Your task to perform on an android device: Show the shopping cart on target.com. Image 0: 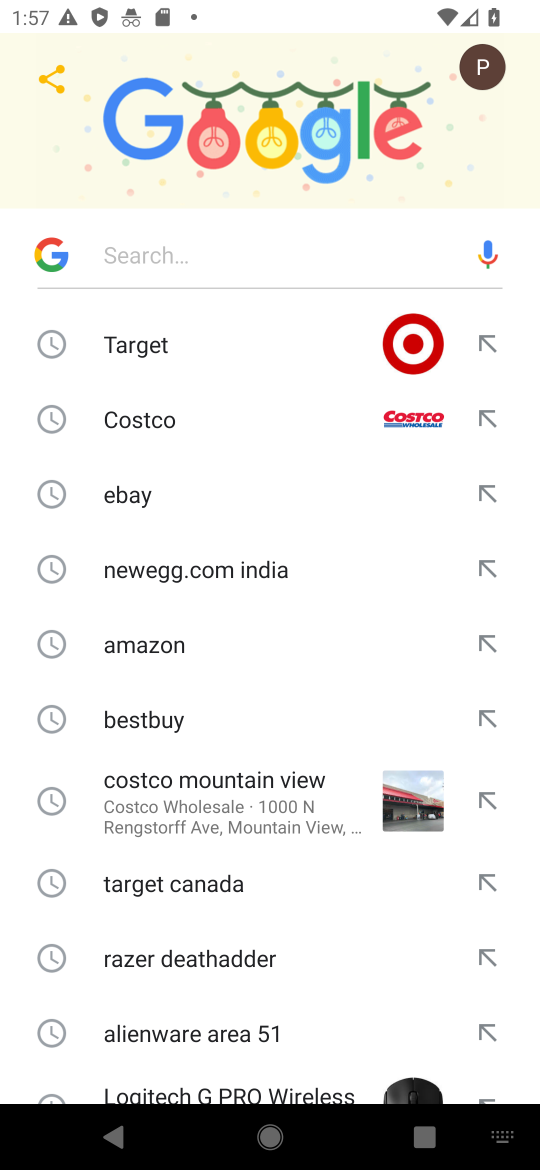
Step 0: press home button
Your task to perform on an android device: Show the shopping cart on target.com. Image 1: 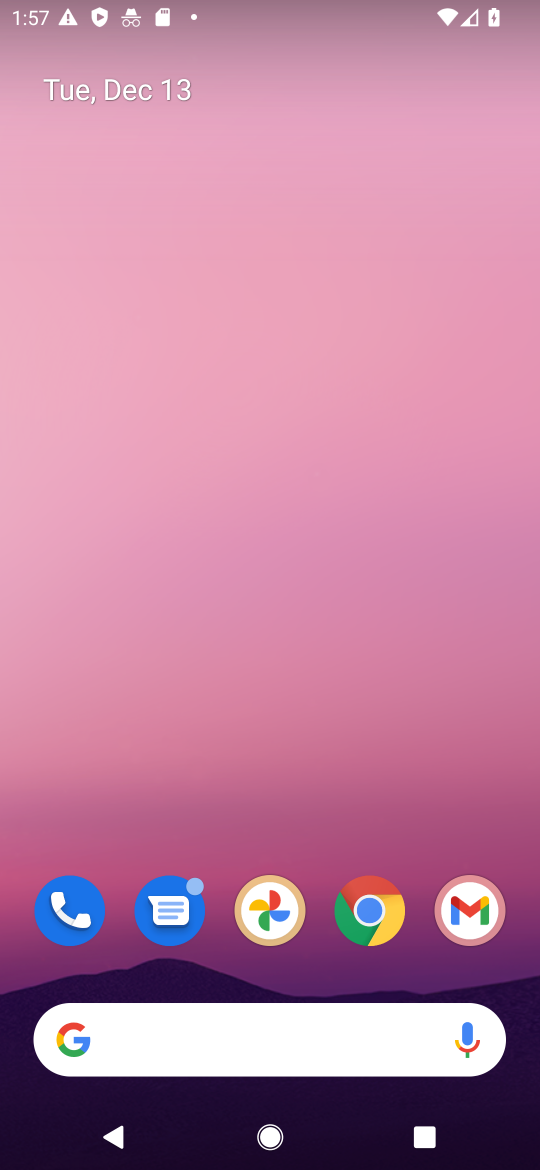
Step 1: click (365, 918)
Your task to perform on an android device: Show the shopping cart on target.com. Image 2: 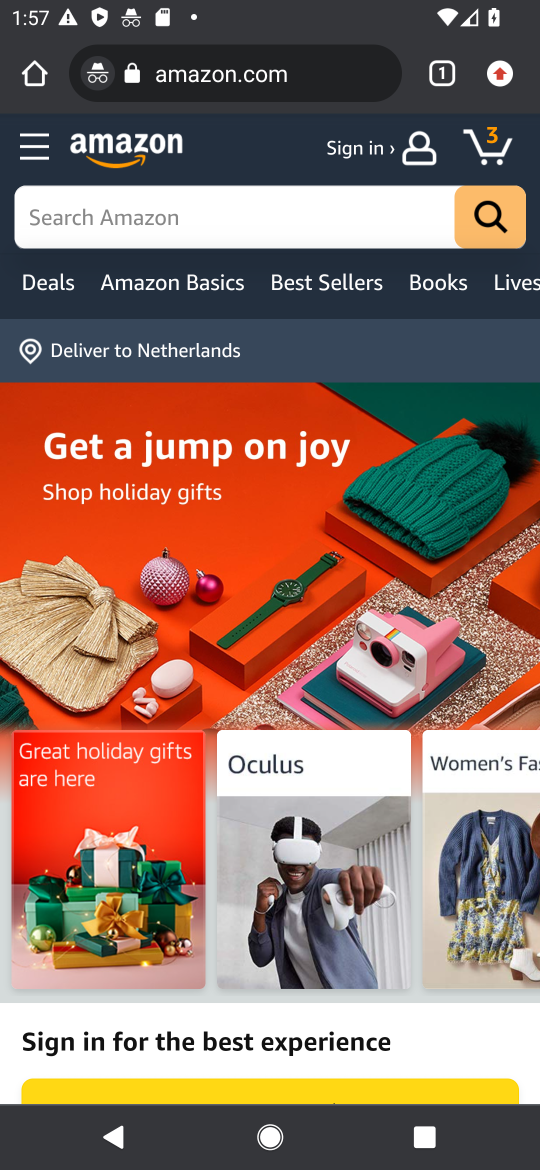
Step 2: click (209, 60)
Your task to perform on an android device: Show the shopping cart on target.com. Image 3: 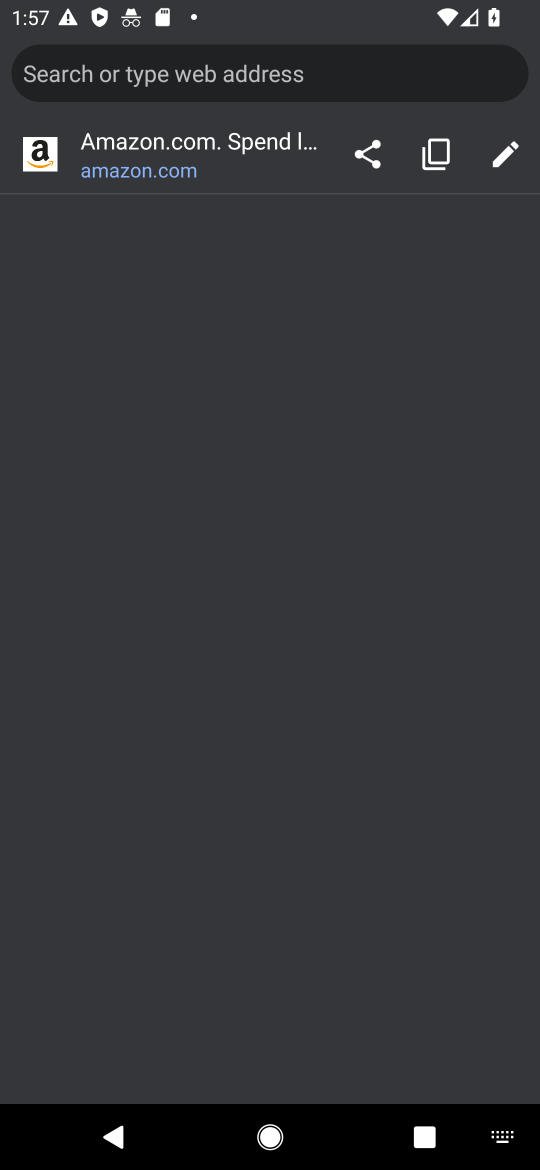
Step 3: type "TARGET"
Your task to perform on an android device: Show the shopping cart on target.com. Image 4: 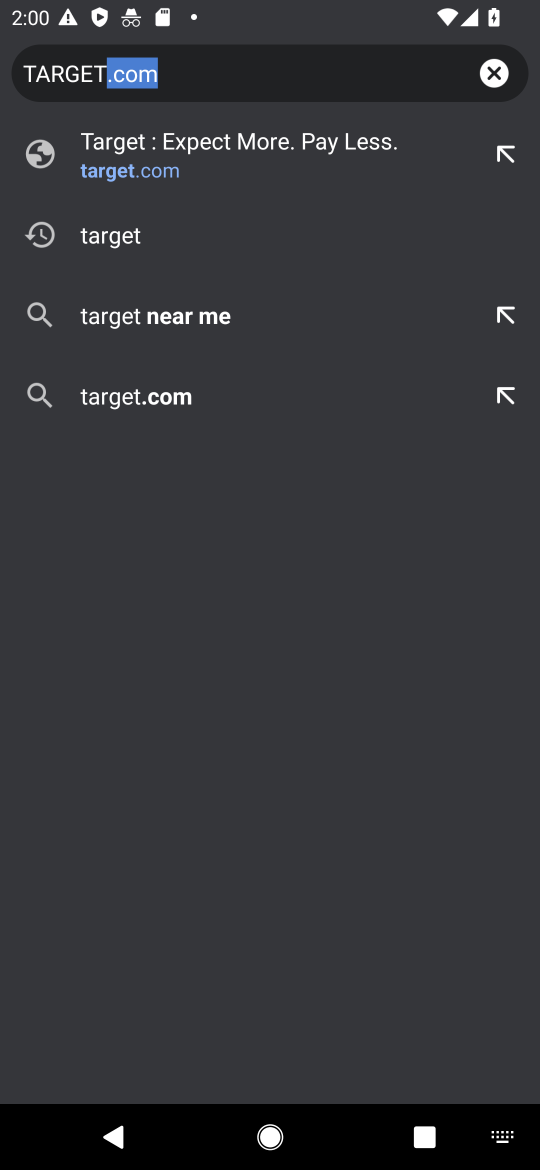
Step 4: click (173, 166)
Your task to perform on an android device: Show the shopping cart on target.com. Image 5: 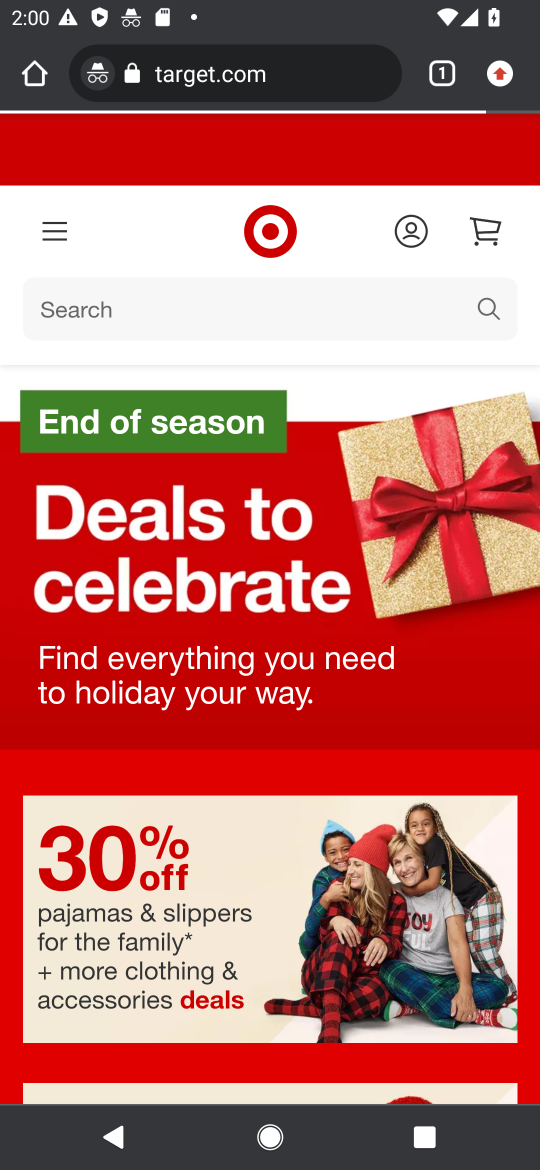
Step 5: task complete